Your task to perform on an android device: Open calendar and show me the second week of next month Image 0: 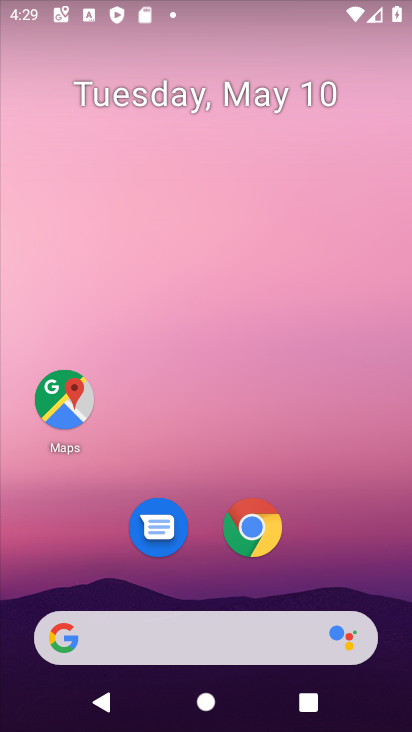
Step 0: drag from (349, 526) to (355, 72)
Your task to perform on an android device: Open calendar and show me the second week of next month Image 1: 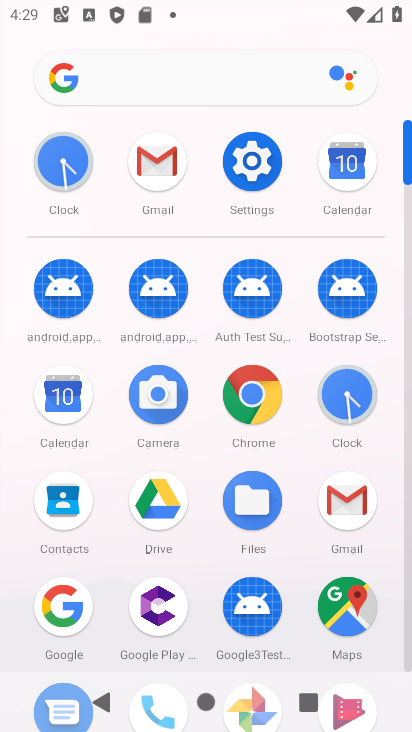
Step 1: click (341, 166)
Your task to perform on an android device: Open calendar and show me the second week of next month Image 2: 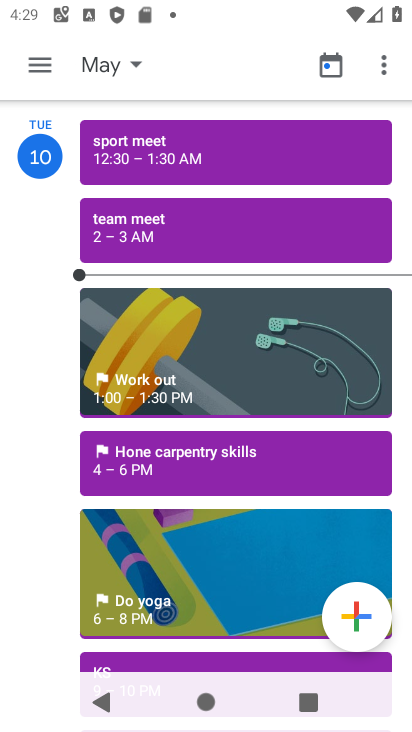
Step 2: click (40, 56)
Your task to perform on an android device: Open calendar and show me the second week of next month Image 3: 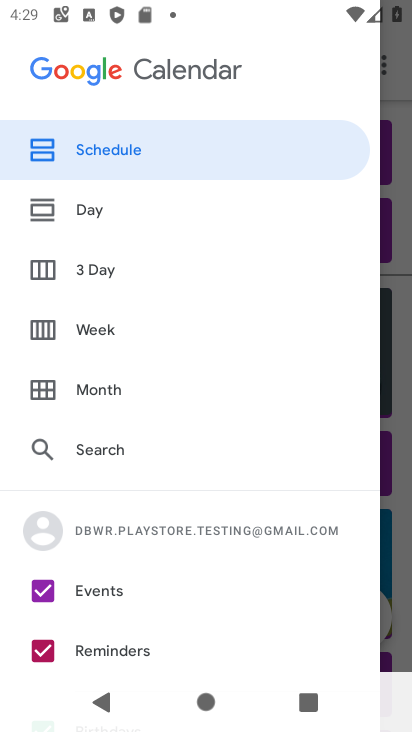
Step 3: click (75, 392)
Your task to perform on an android device: Open calendar and show me the second week of next month Image 4: 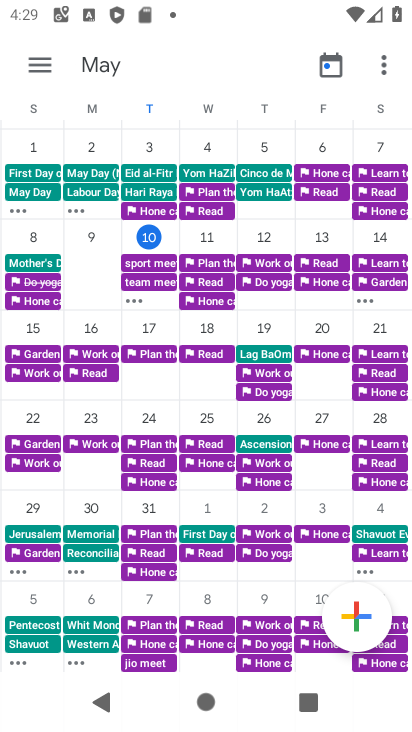
Step 4: drag from (361, 386) to (1, 500)
Your task to perform on an android device: Open calendar and show me the second week of next month Image 5: 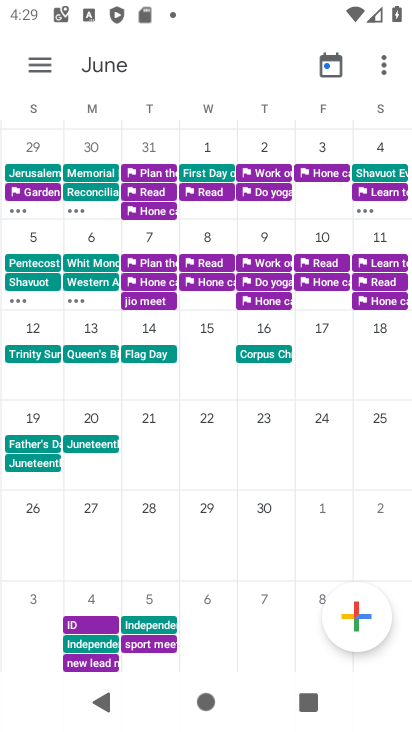
Step 5: click (36, 325)
Your task to perform on an android device: Open calendar and show me the second week of next month Image 6: 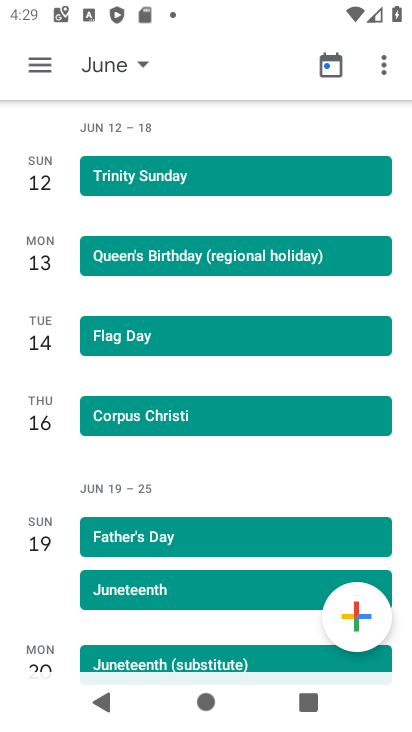
Step 6: click (41, 59)
Your task to perform on an android device: Open calendar and show me the second week of next month Image 7: 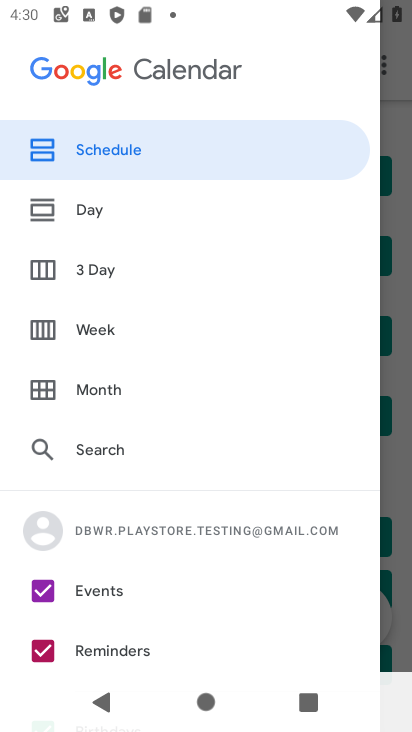
Step 7: click (51, 328)
Your task to perform on an android device: Open calendar and show me the second week of next month Image 8: 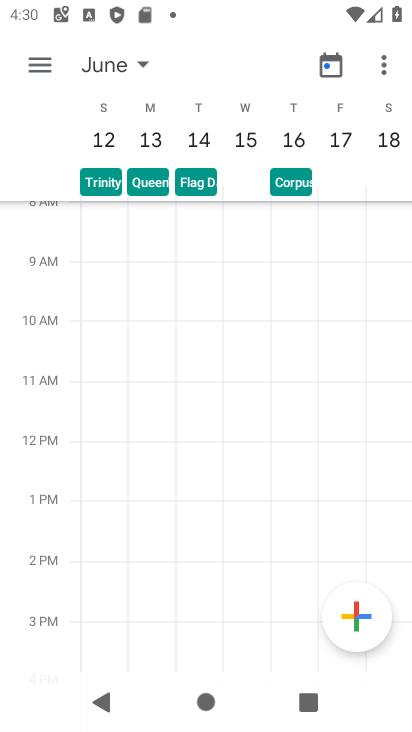
Step 8: task complete